Your task to perform on an android device: Open calendar and show me the first week of next month Image 0: 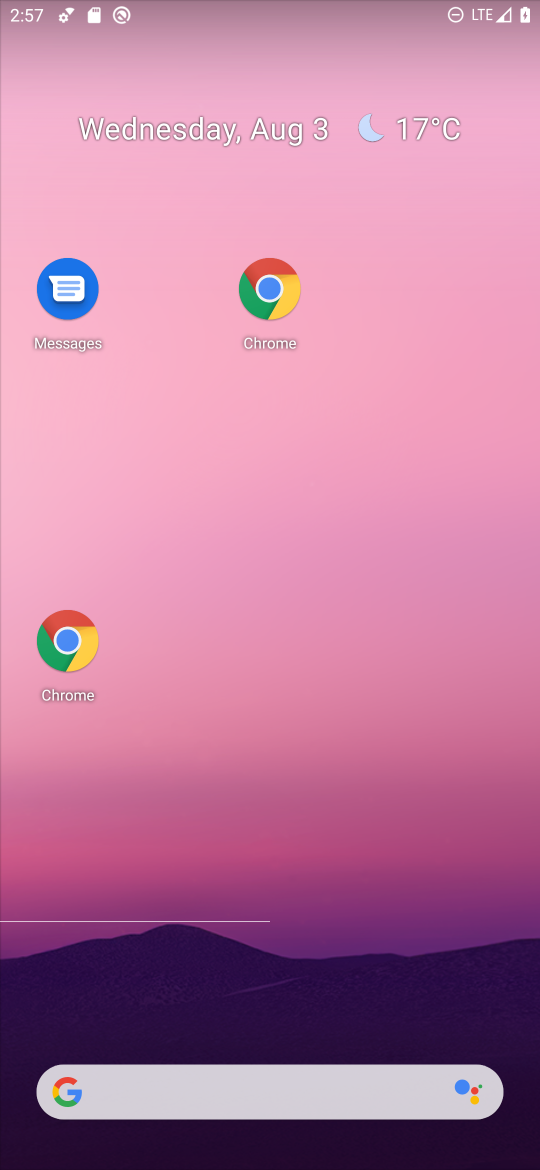
Step 0: drag from (384, 1001) to (368, 351)
Your task to perform on an android device: Open calendar and show me the first week of next month Image 1: 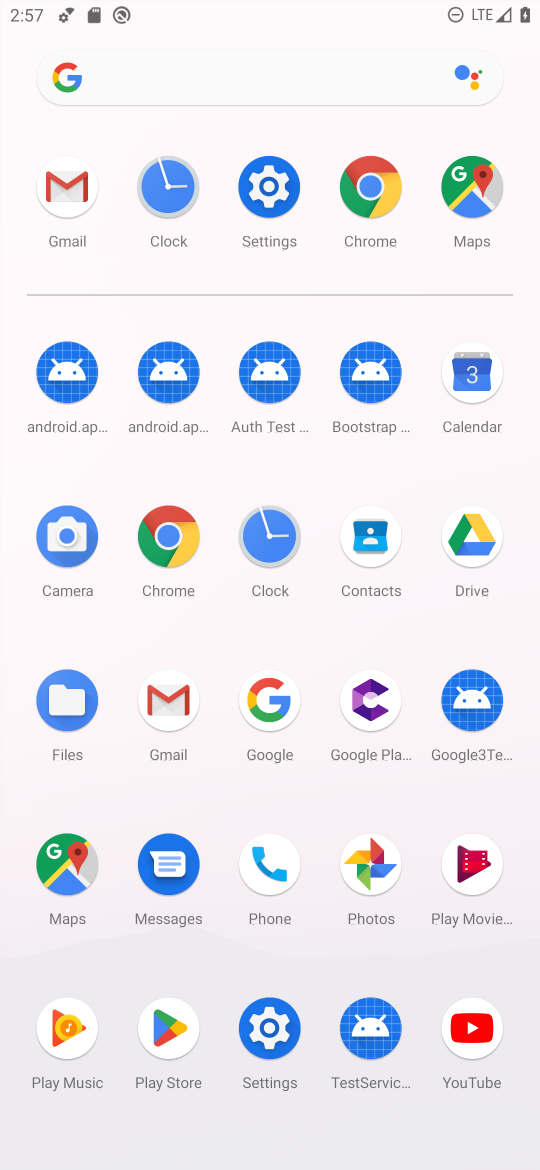
Step 1: click (467, 406)
Your task to perform on an android device: Open calendar and show me the first week of next month Image 2: 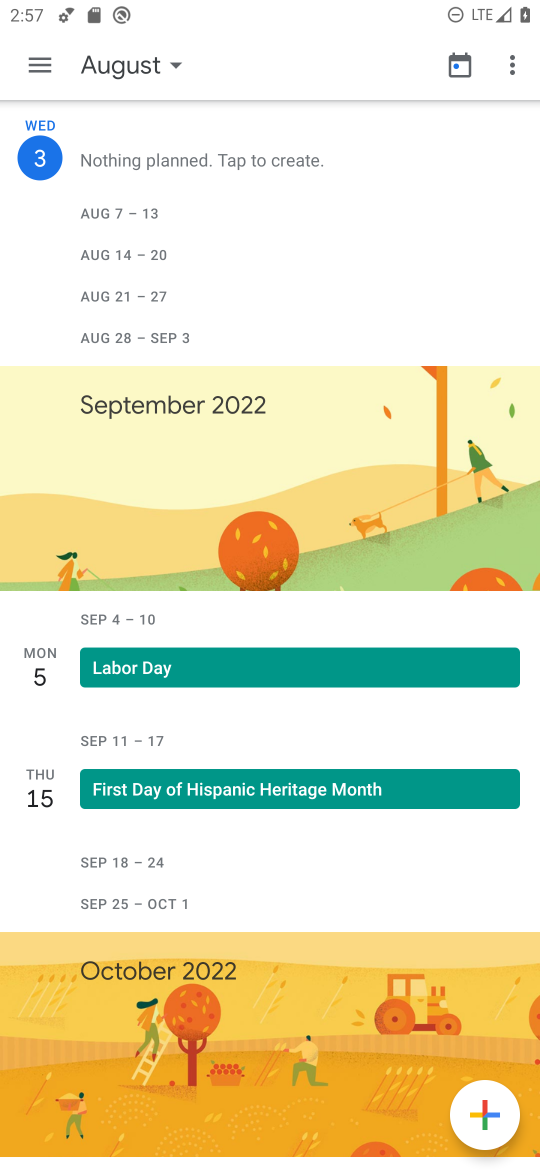
Step 2: task complete